Your task to perform on an android device: Go to internet settings Image 0: 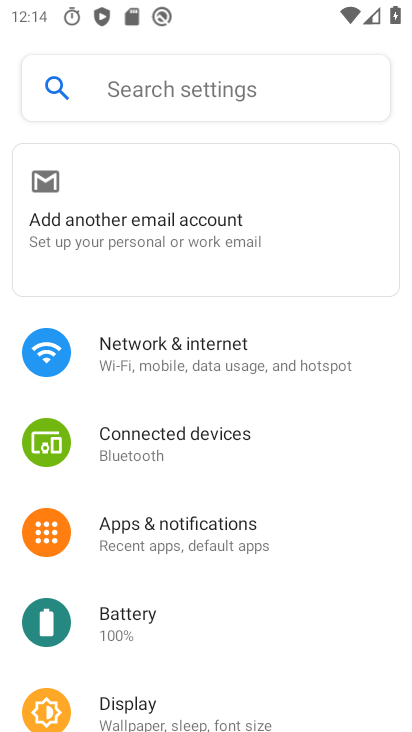
Step 0: press home button
Your task to perform on an android device: Go to internet settings Image 1: 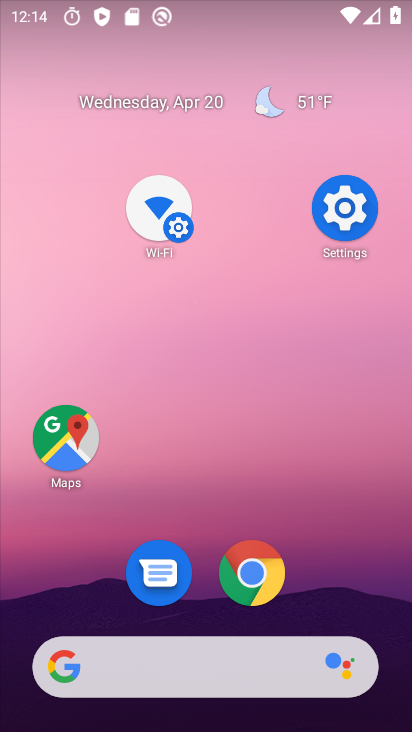
Step 1: click (353, 230)
Your task to perform on an android device: Go to internet settings Image 2: 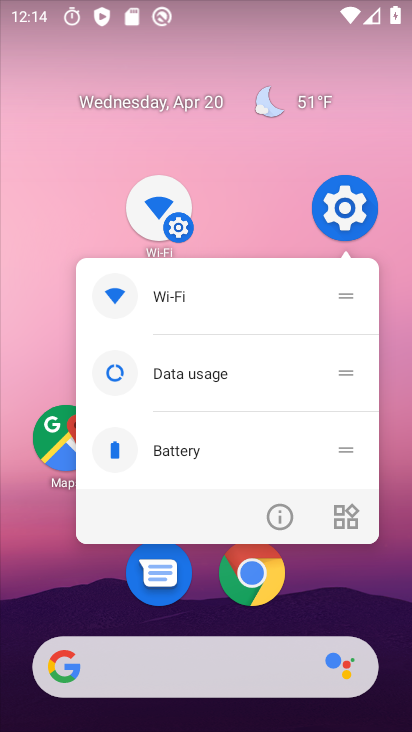
Step 2: click (323, 217)
Your task to perform on an android device: Go to internet settings Image 3: 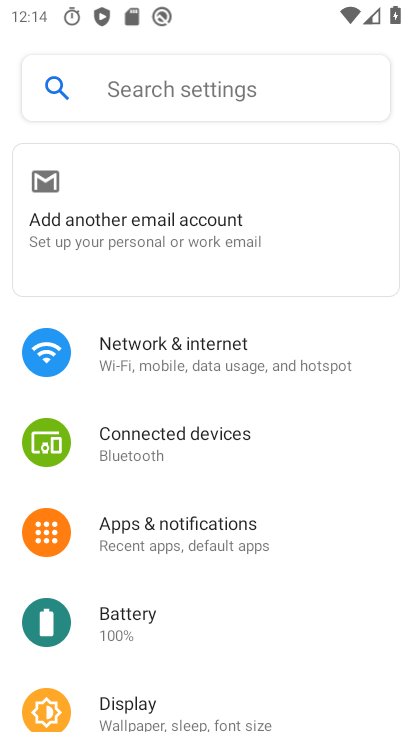
Step 3: click (213, 351)
Your task to perform on an android device: Go to internet settings Image 4: 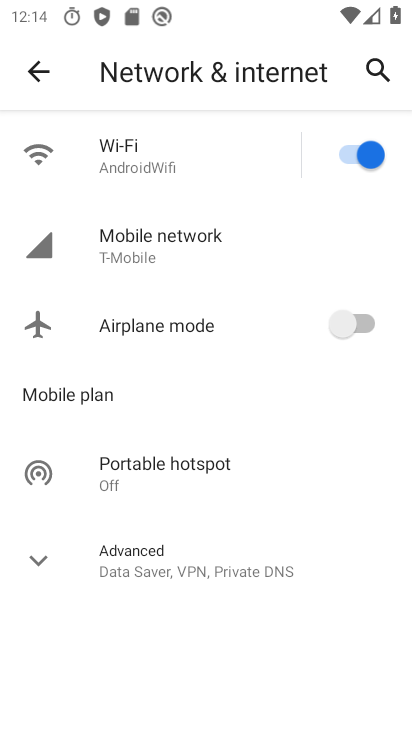
Step 4: task complete